Your task to perform on an android device: Check the news Image 0: 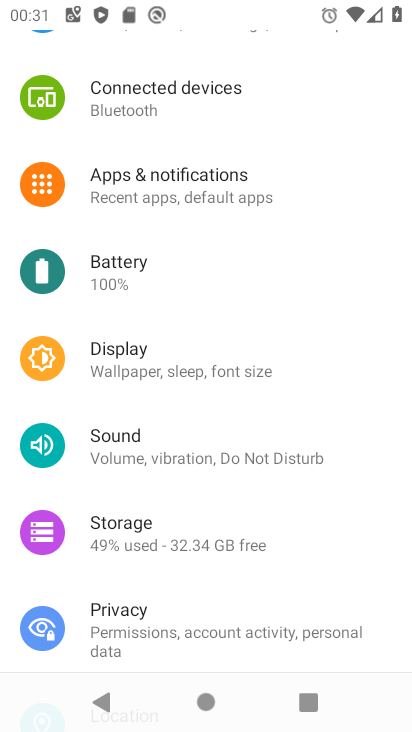
Step 0: press home button
Your task to perform on an android device: Check the news Image 1: 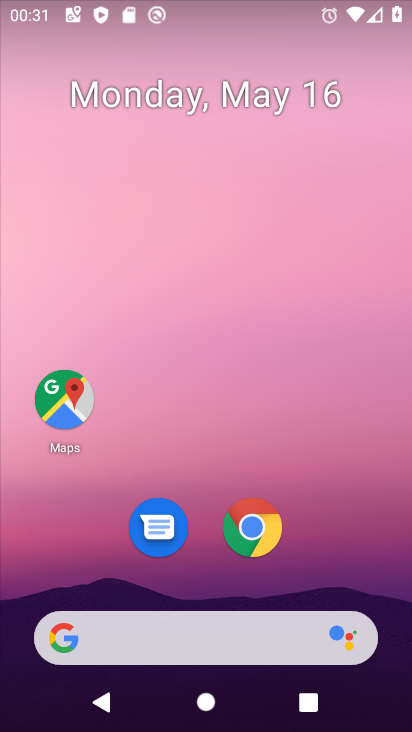
Step 1: click (230, 658)
Your task to perform on an android device: Check the news Image 2: 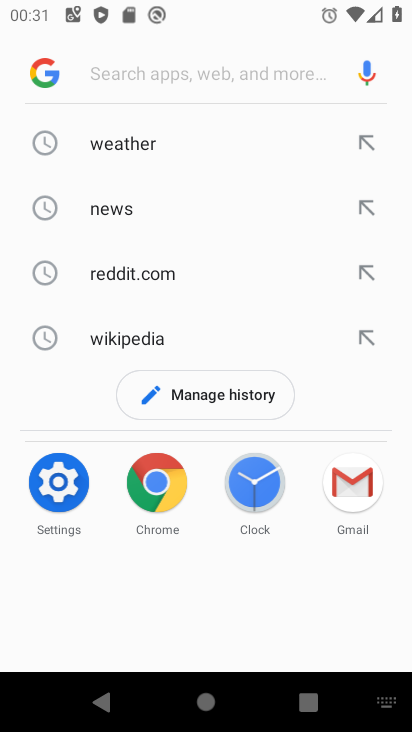
Step 2: click (114, 224)
Your task to perform on an android device: Check the news Image 3: 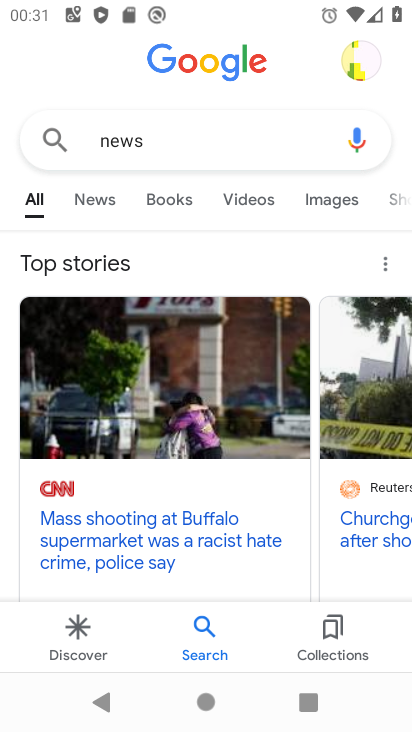
Step 3: task complete